Your task to perform on an android device: uninstall "LiveIn - Share Your Moment" Image 0: 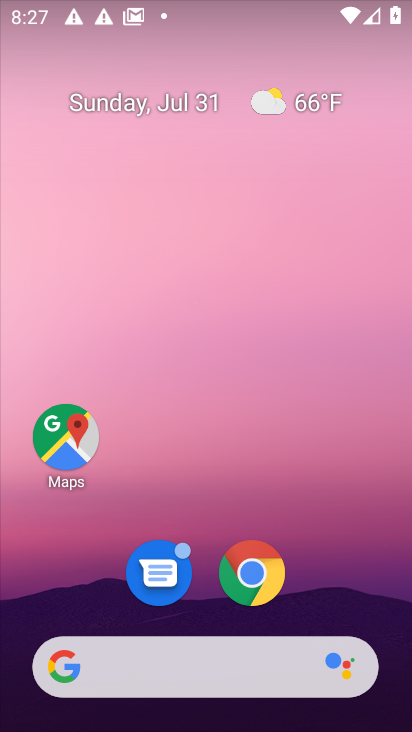
Step 0: drag from (201, 473) to (185, 26)
Your task to perform on an android device: uninstall "LiveIn - Share Your Moment" Image 1: 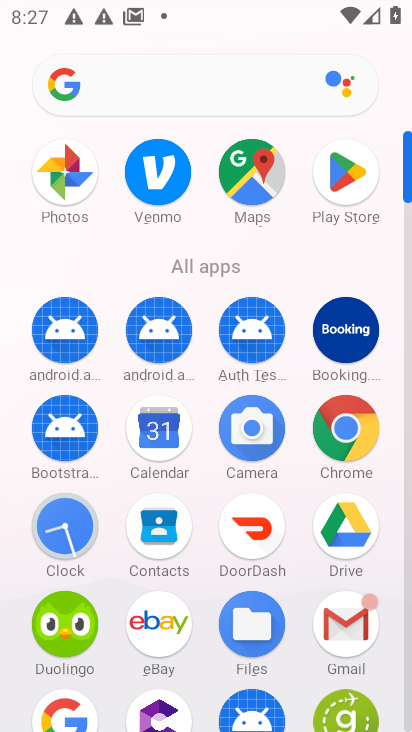
Step 1: click (350, 198)
Your task to perform on an android device: uninstall "LiveIn - Share Your Moment" Image 2: 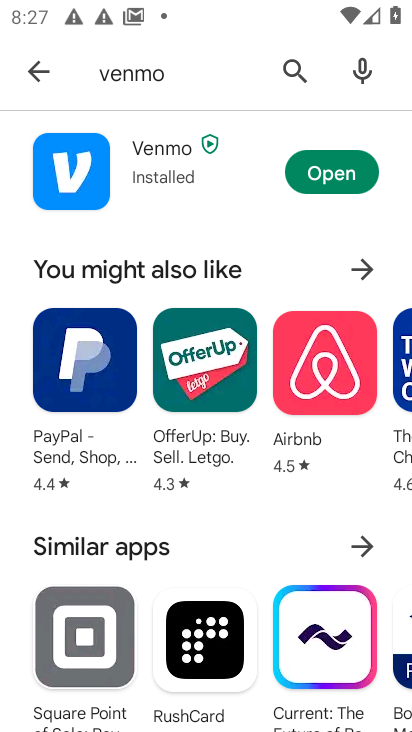
Step 2: click (135, 66)
Your task to perform on an android device: uninstall "LiveIn - Share Your Moment" Image 3: 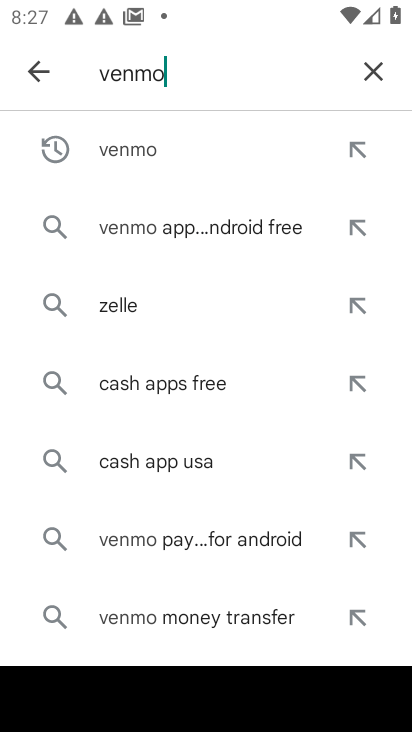
Step 3: click (370, 70)
Your task to perform on an android device: uninstall "LiveIn - Share Your Moment" Image 4: 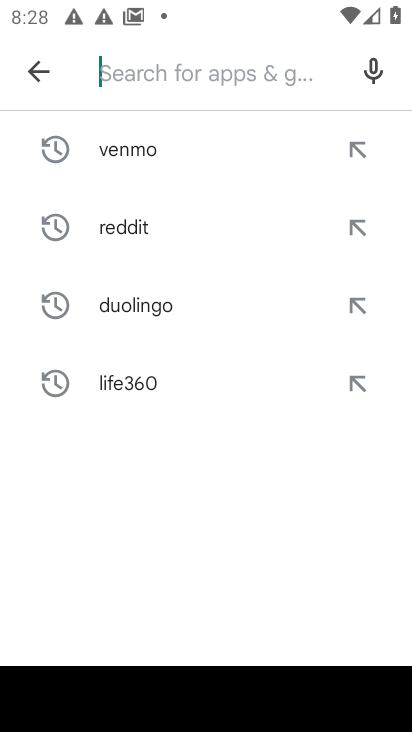
Step 4: type "LiveIN"
Your task to perform on an android device: uninstall "LiveIn - Share Your Moment" Image 5: 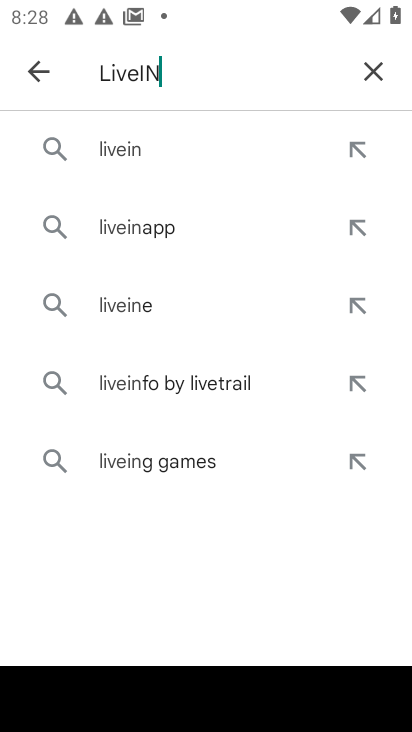
Step 5: click (136, 139)
Your task to perform on an android device: uninstall "LiveIn - Share Your Moment" Image 6: 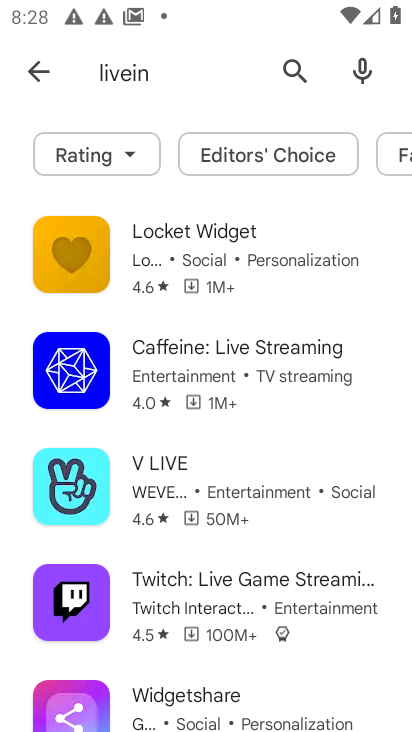
Step 6: task complete